Your task to perform on an android device: check storage Image 0: 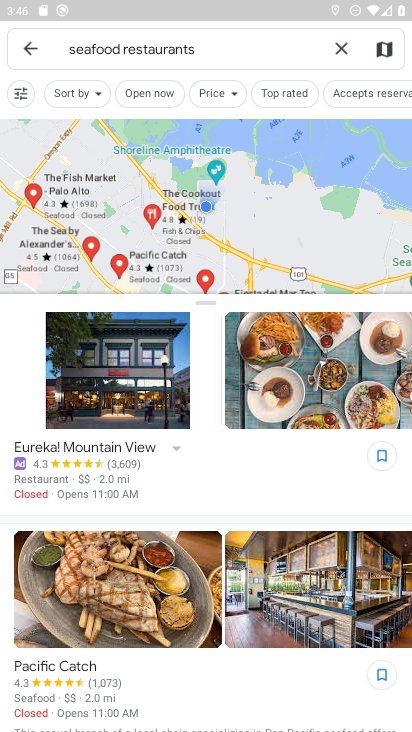
Step 0: press home button
Your task to perform on an android device: check storage Image 1: 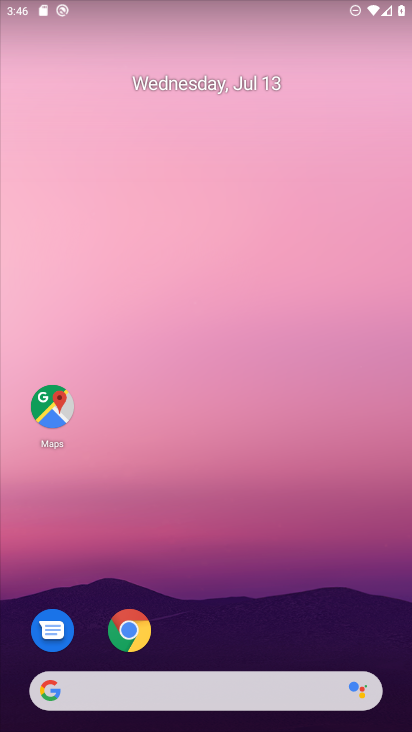
Step 1: drag from (398, 351) to (397, 0)
Your task to perform on an android device: check storage Image 2: 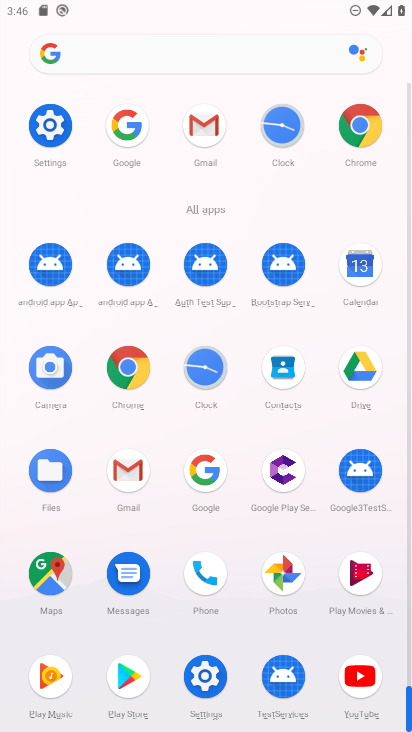
Step 2: click (207, 679)
Your task to perform on an android device: check storage Image 3: 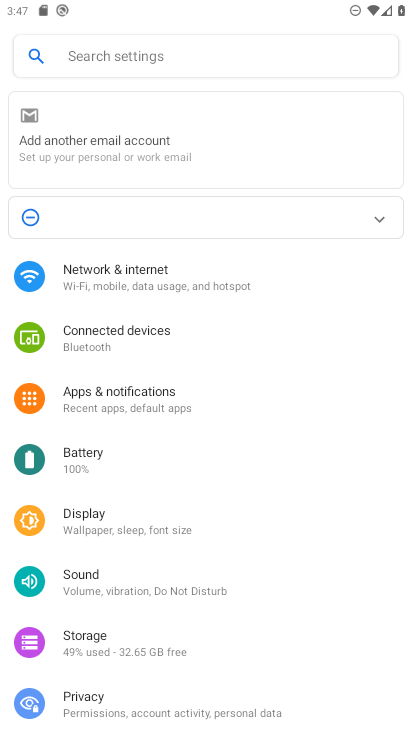
Step 3: drag from (202, 644) to (141, 110)
Your task to perform on an android device: check storage Image 4: 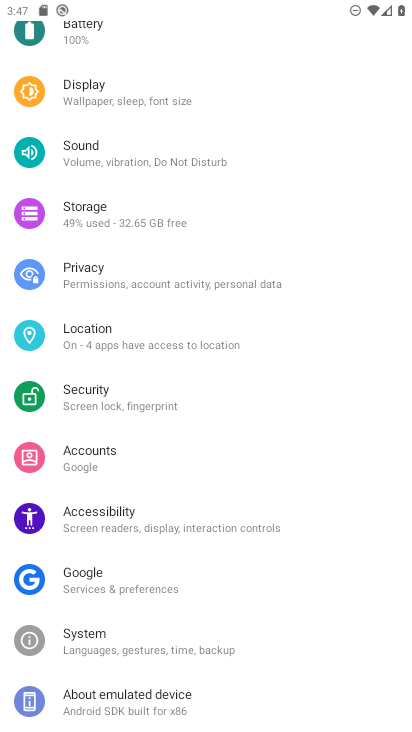
Step 4: click (79, 216)
Your task to perform on an android device: check storage Image 5: 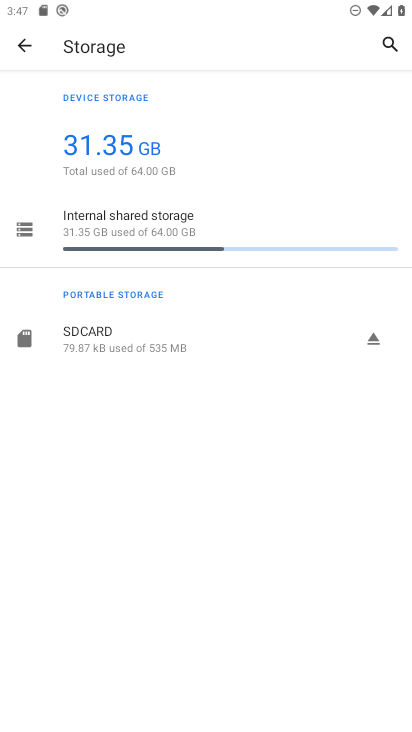
Step 5: click (79, 216)
Your task to perform on an android device: check storage Image 6: 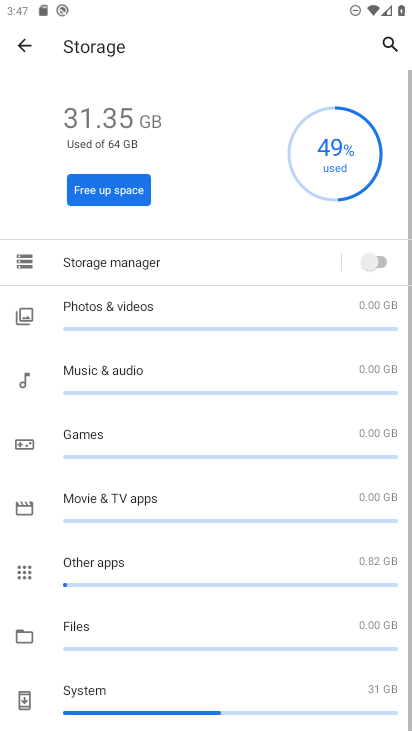
Step 6: task complete